Your task to perform on an android device: refresh tabs in the chrome app Image 0: 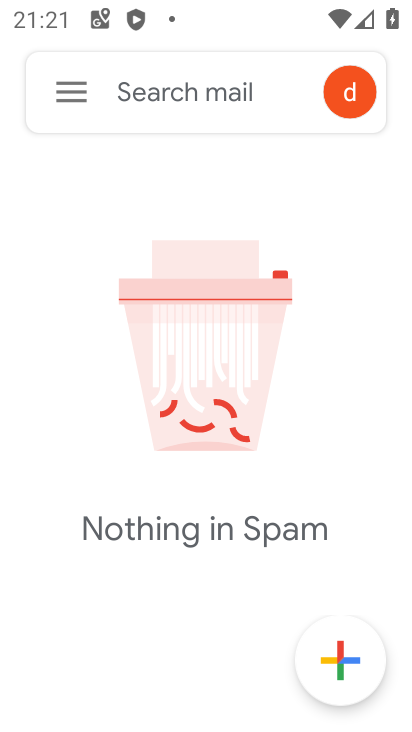
Step 0: press back button
Your task to perform on an android device: refresh tabs in the chrome app Image 1: 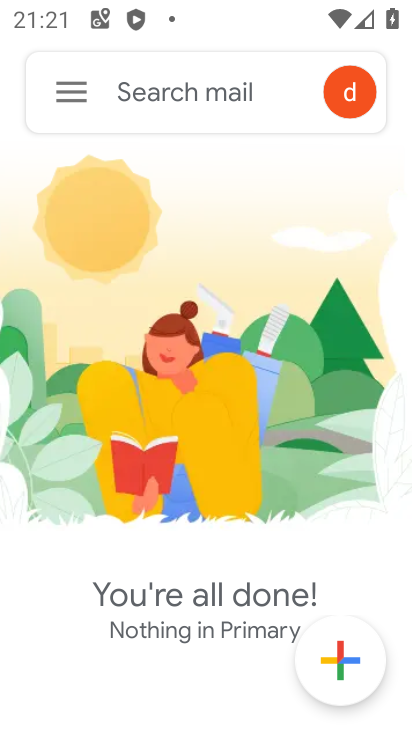
Step 1: press back button
Your task to perform on an android device: refresh tabs in the chrome app Image 2: 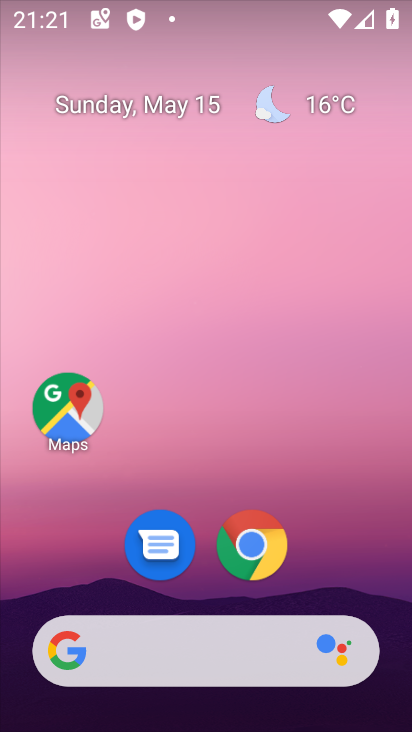
Step 2: click (252, 546)
Your task to perform on an android device: refresh tabs in the chrome app Image 3: 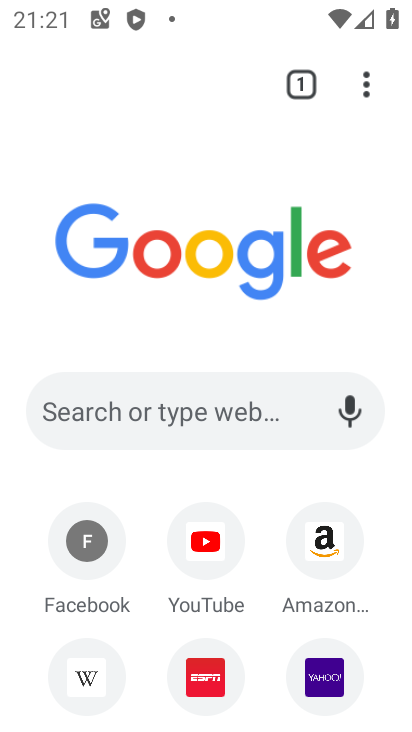
Step 3: click (370, 84)
Your task to perform on an android device: refresh tabs in the chrome app Image 4: 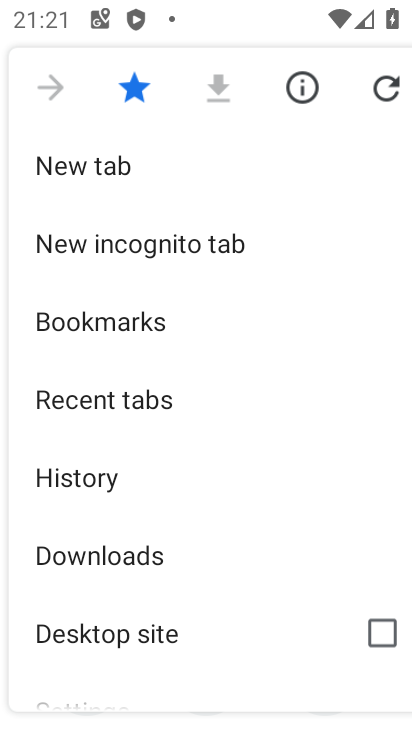
Step 4: click (377, 90)
Your task to perform on an android device: refresh tabs in the chrome app Image 5: 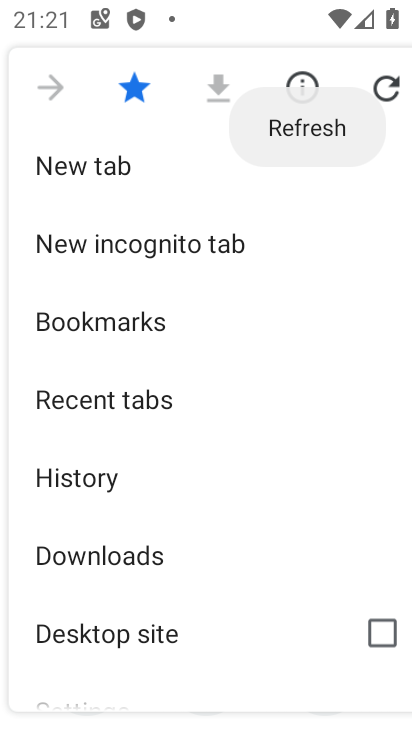
Step 5: click (313, 122)
Your task to perform on an android device: refresh tabs in the chrome app Image 6: 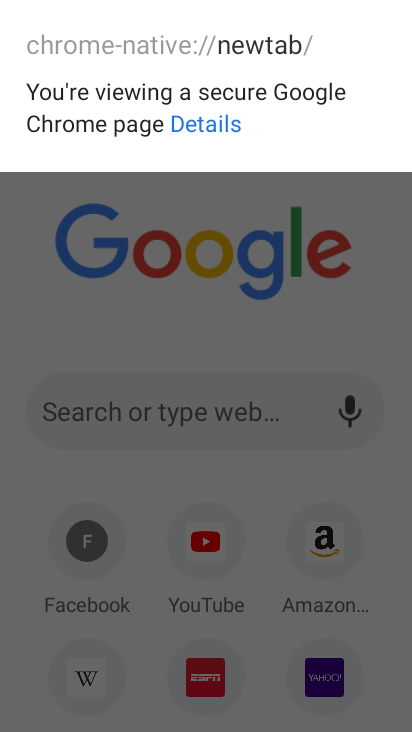
Step 6: click (395, 239)
Your task to perform on an android device: refresh tabs in the chrome app Image 7: 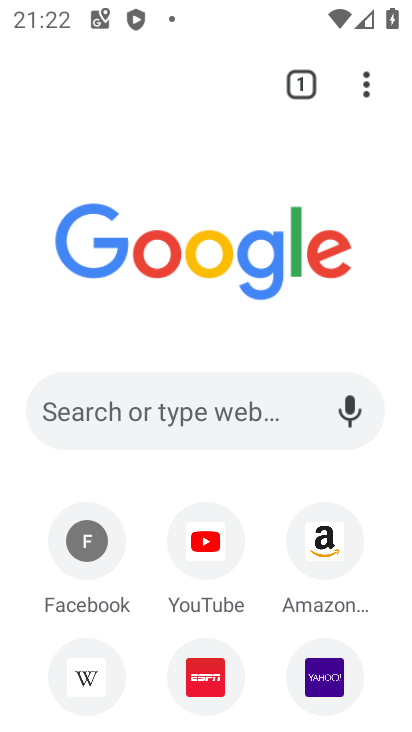
Step 7: click (367, 88)
Your task to perform on an android device: refresh tabs in the chrome app Image 8: 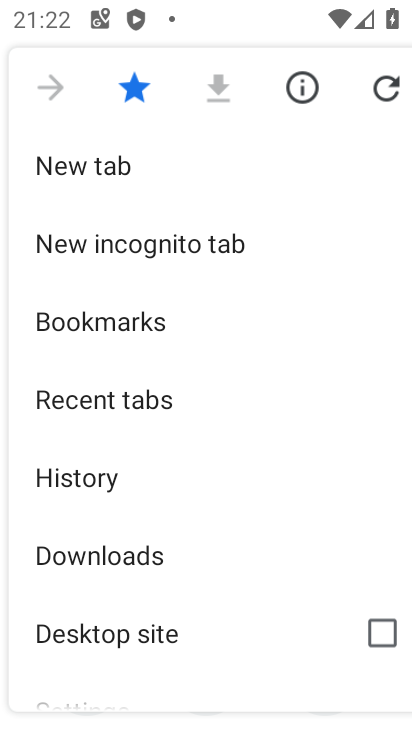
Step 8: click (393, 97)
Your task to perform on an android device: refresh tabs in the chrome app Image 9: 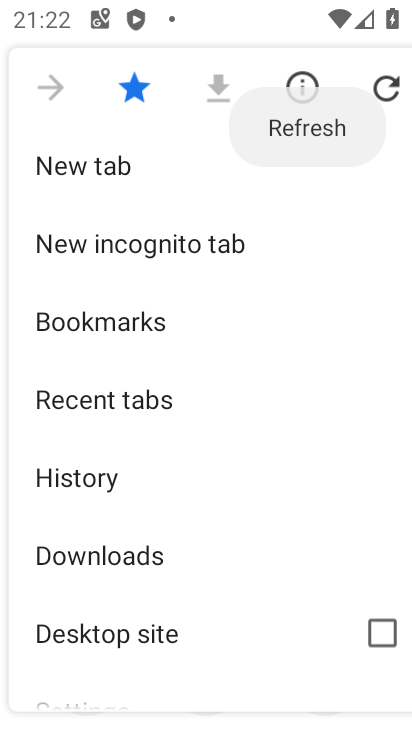
Step 9: click (394, 99)
Your task to perform on an android device: refresh tabs in the chrome app Image 10: 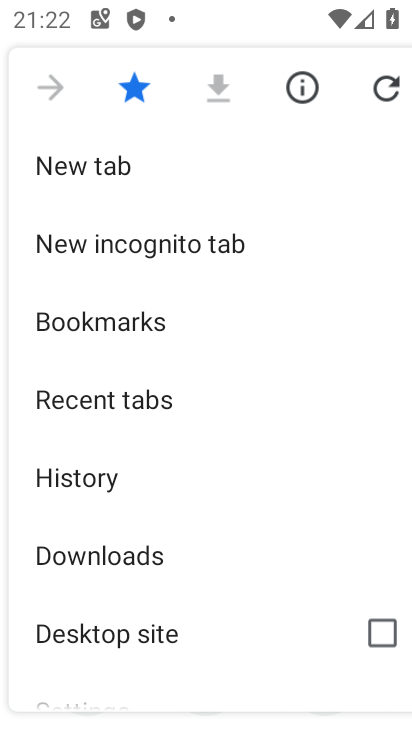
Step 10: task complete